Your task to perform on an android device: change the upload size in google photos Image 0: 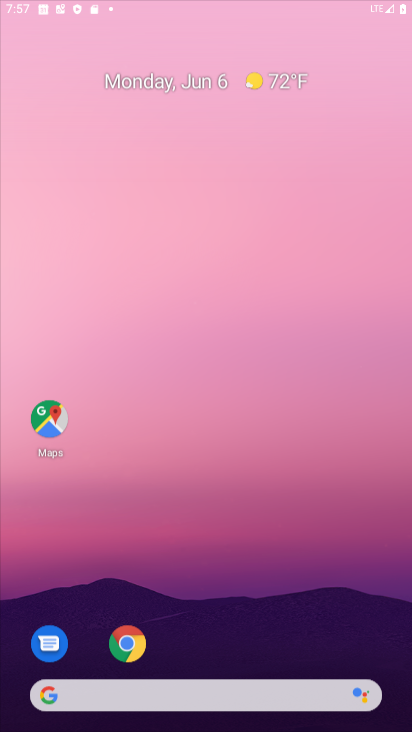
Step 0: drag from (321, 711) to (258, 312)
Your task to perform on an android device: change the upload size in google photos Image 1: 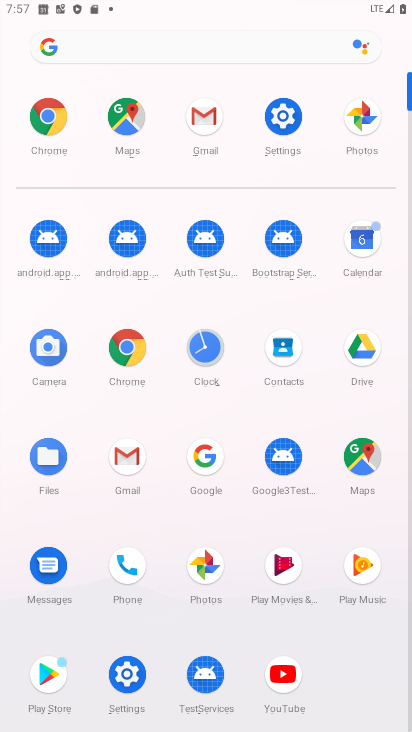
Step 1: click (199, 560)
Your task to perform on an android device: change the upload size in google photos Image 2: 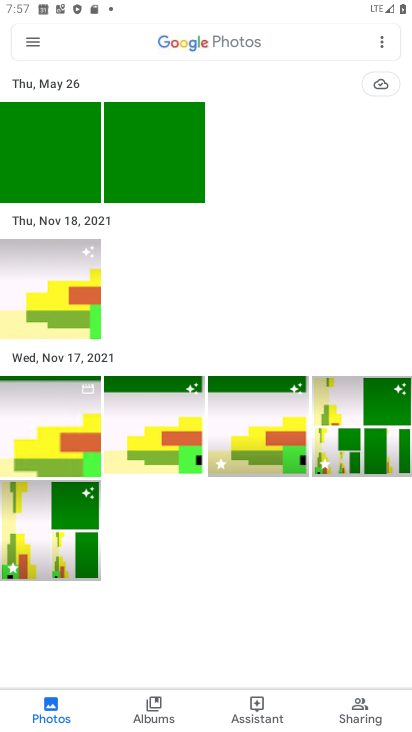
Step 2: click (45, 45)
Your task to perform on an android device: change the upload size in google photos Image 3: 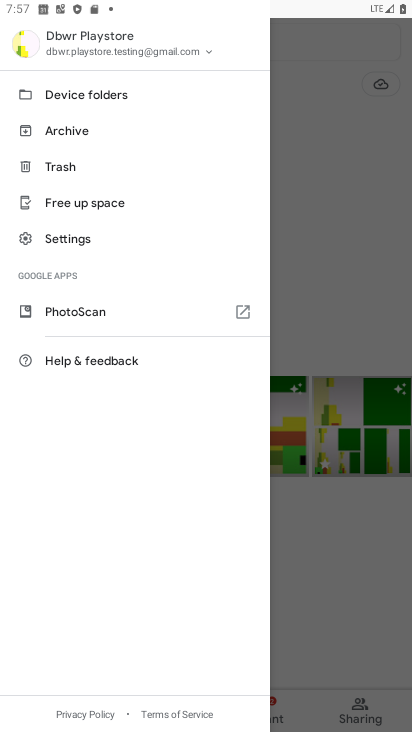
Step 3: click (82, 240)
Your task to perform on an android device: change the upload size in google photos Image 4: 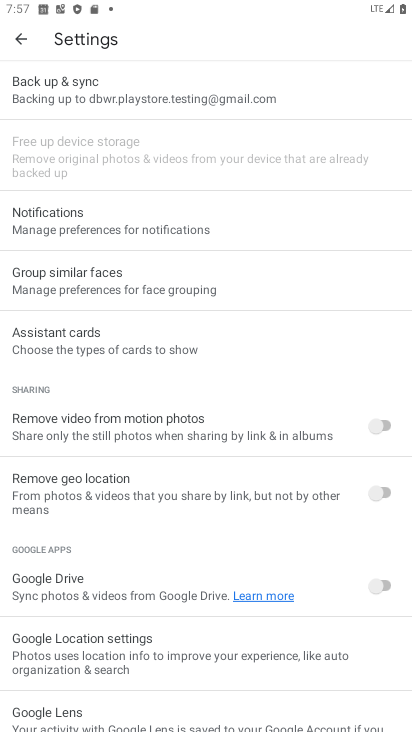
Step 4: click (86, 77)
Your task to perform on an android device: change the upload size in google photos Image 5: 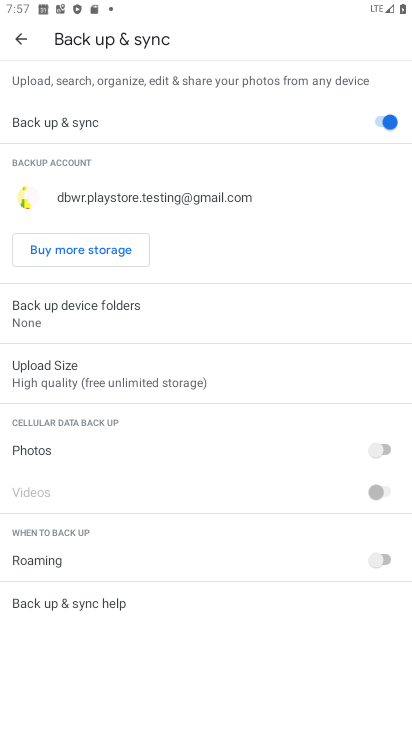
Step 5: click (106, 371)
Your task to perform on an android device: change the upload size in google photos Image 6: 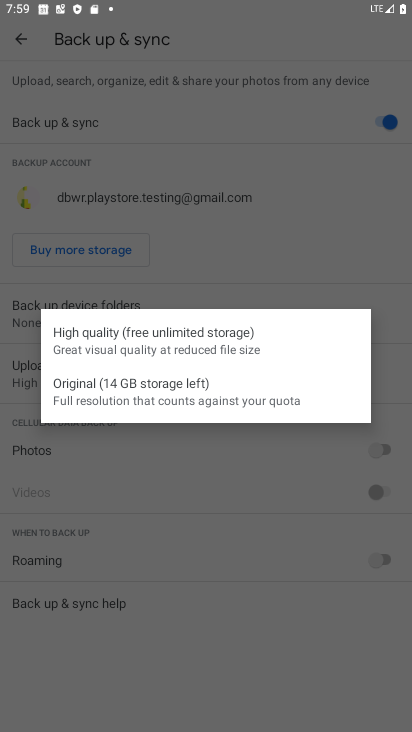
Step 6: task complete